Your task to perform on an android device: Do I have any events this weekend? Image 0: 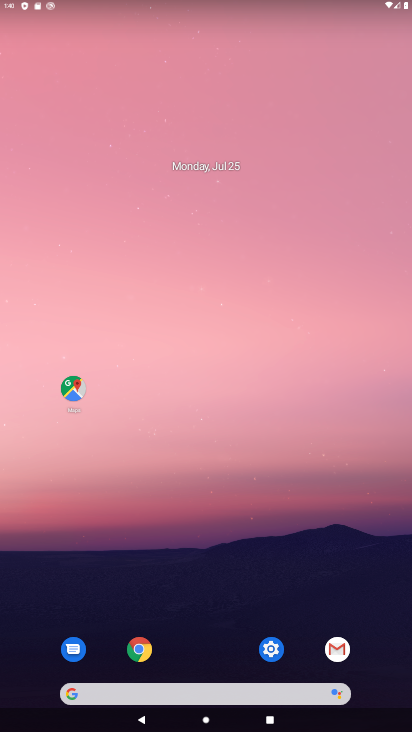
Step 0: drag from (250, 703) to (289, 54)
Your task to perform on an android device: Do I have any events this weekend? Image 1: 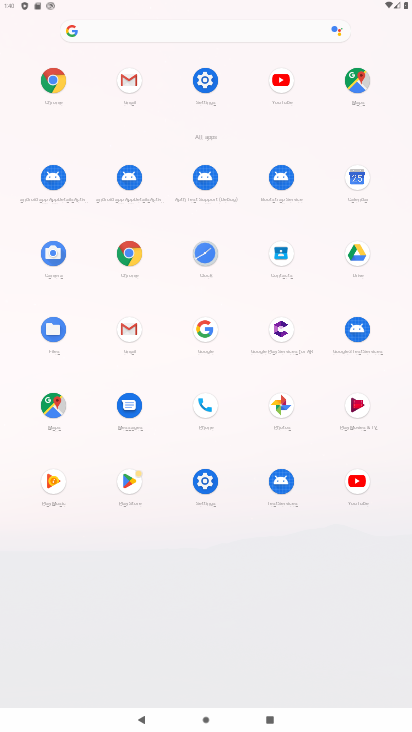
Step 1: click (350, 182)
Your task to perform on an android device: Do I have any events this weekend? Image 2: 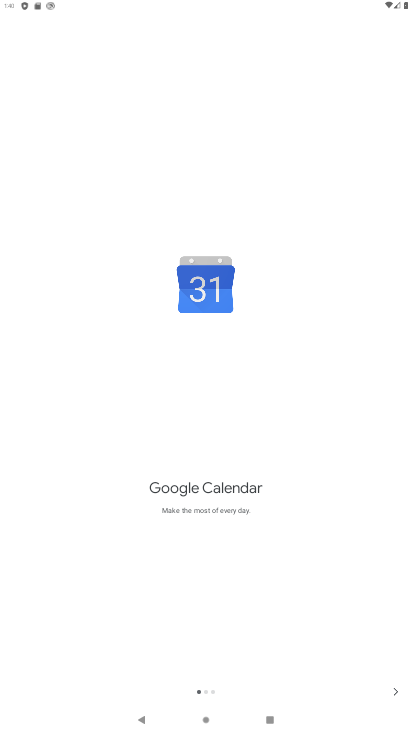
Step 2: click (378, 704)
Your task to perform on an android device: Do I have any events this weekend? Image 3: 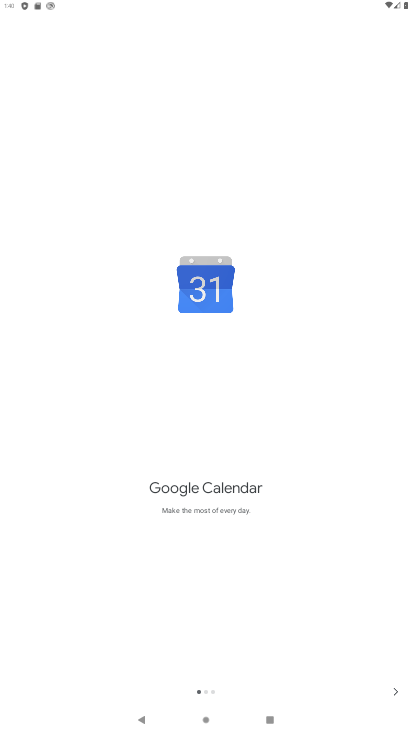
Step 3: click (386, 692)
Your task to perform on an android device: Do I have any events this weekend? Image 4: 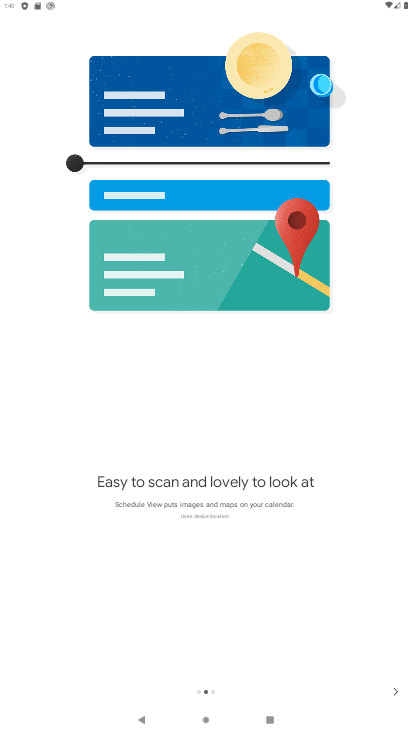
Step 4: click (386, 692)
Your task to perform on an android device: Do I have any events this weekend? Image 5: 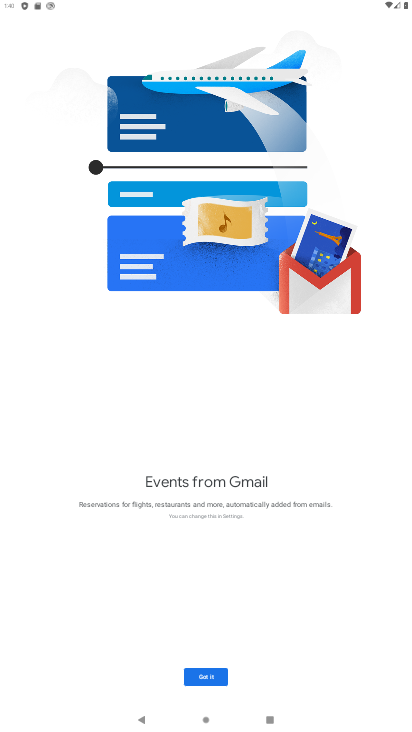
Step 5: click (204, 672)
Your task to perform on an android device: Do I have any events this weekend? Image 6: 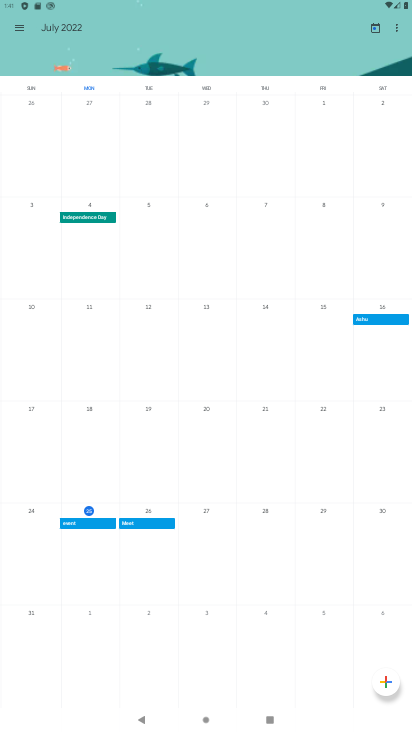
Step 6: click (96, 518)
Your task to perform on an android device: Do I have any events this weekend? Image 7: 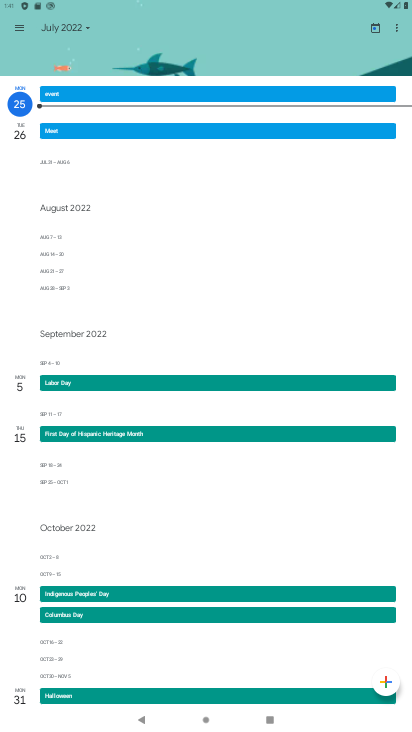
Step 7: task complete